Your task to perform on an android device: Open Google Maps Image 0: 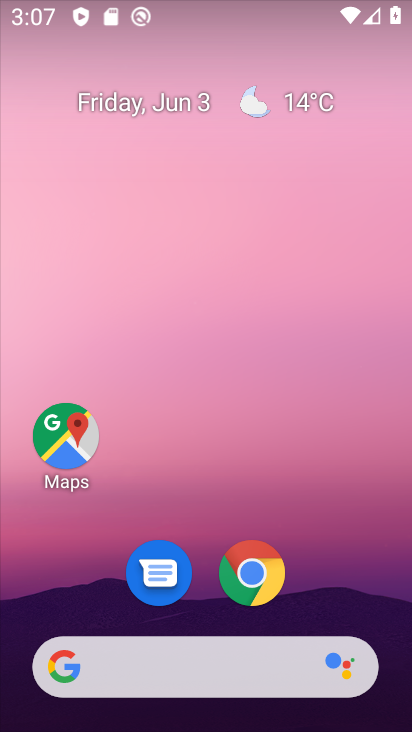
Step 0: drag from (250, 641) to (276, 9)
Your task to perform on an android device: Open Google Maps Image 1: 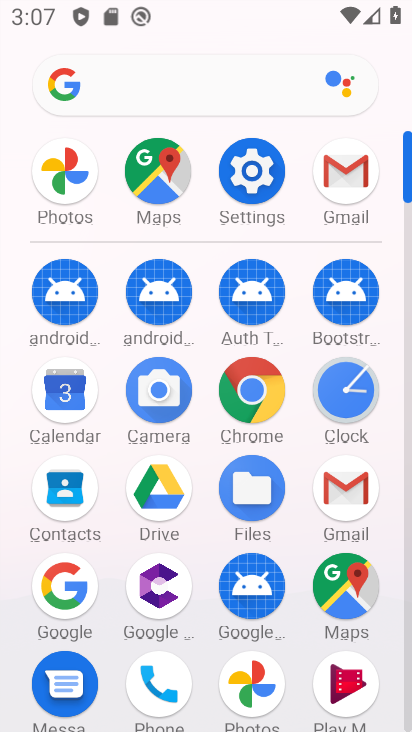
Step 1: click (351, 589)
Your task to perform on an android device: Open Google Maps Image 2: 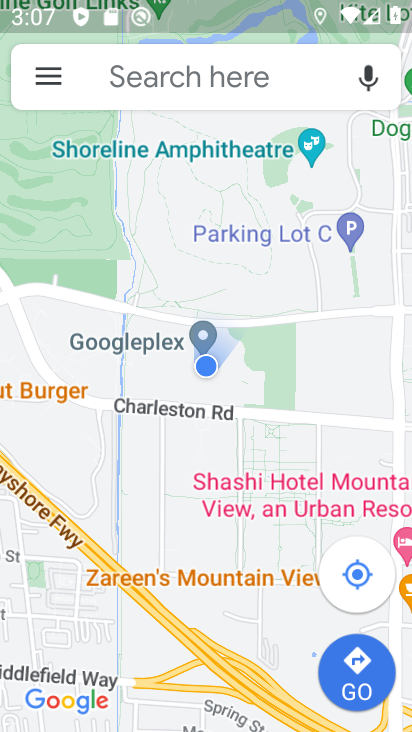
Step 2: task complete